Your task to perform on an android device: Open maps Image 0: 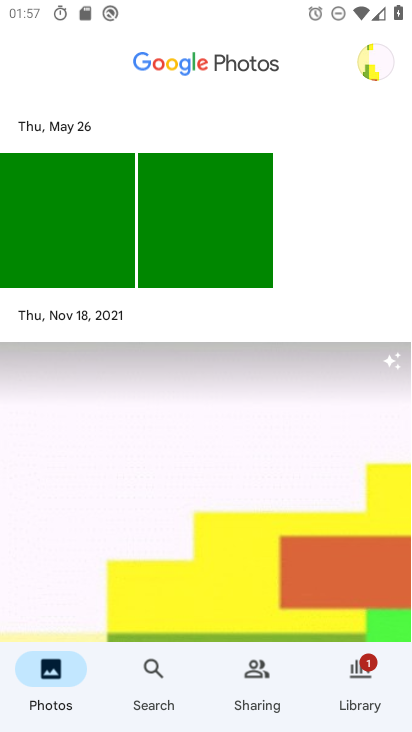
Step 0: press home button
Your task to perform on an android device: Open maps Image 1: 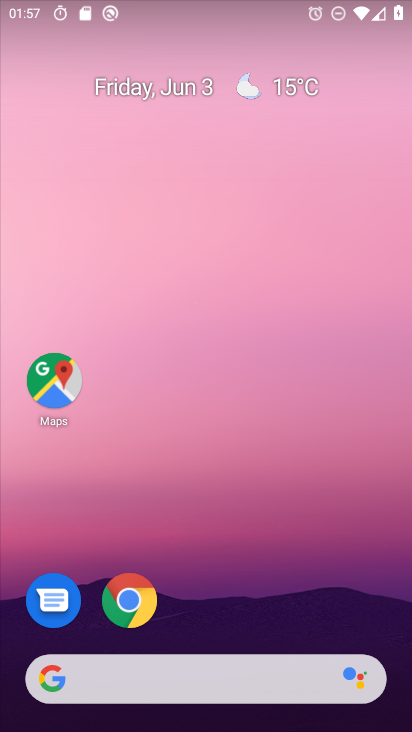
Step 1: click (54, 386)
Your task to perform on an android device: Open maps Image 2: 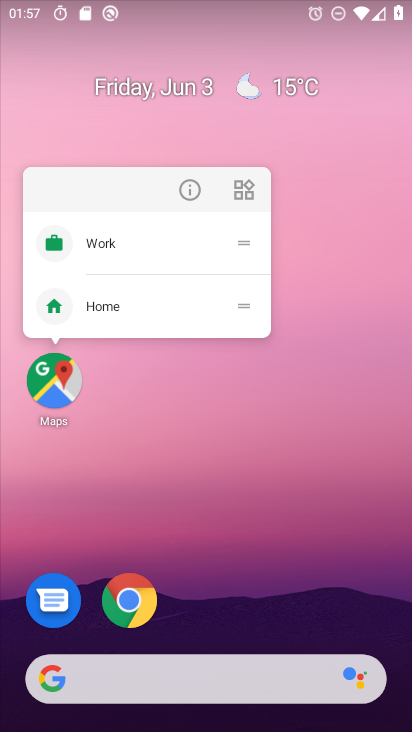
Step 2: click (54, 386)
Your task to perform on an android device: Open maps Image 3: 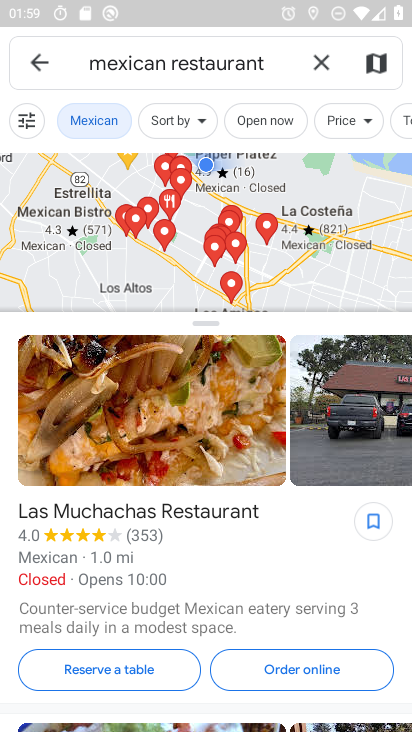
Step 3: task complete